Your task to perform on an android device: see creations saved in the google photos Image 0: 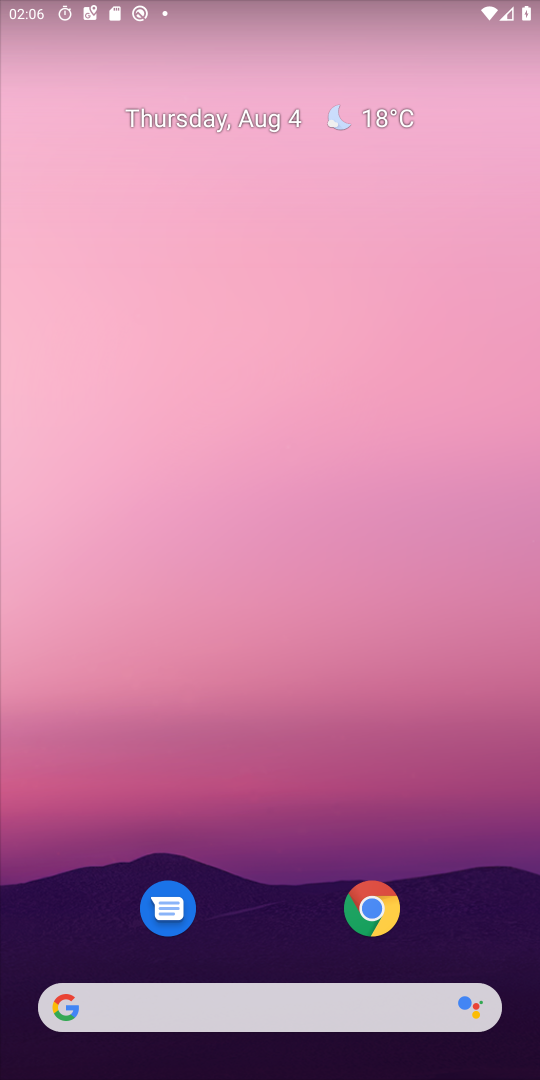
Step 0: press home button
Your task to perform on an android device: see creations saved in the google photos Image 1: 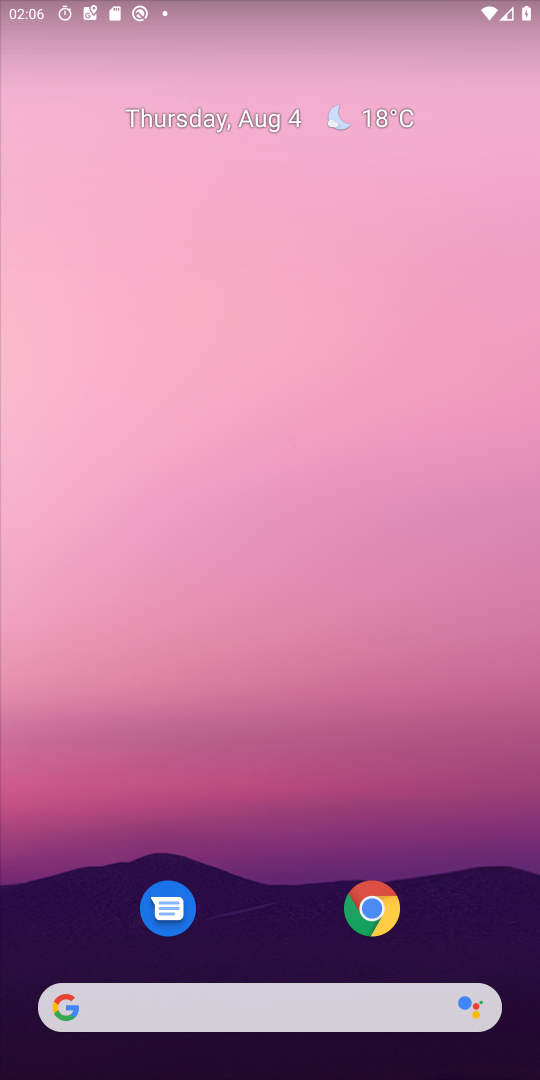
Step 1: drag from (312, 1021) to (76, 76)
Your task to perform on an android device: see creations saved in the google photos Image 2: 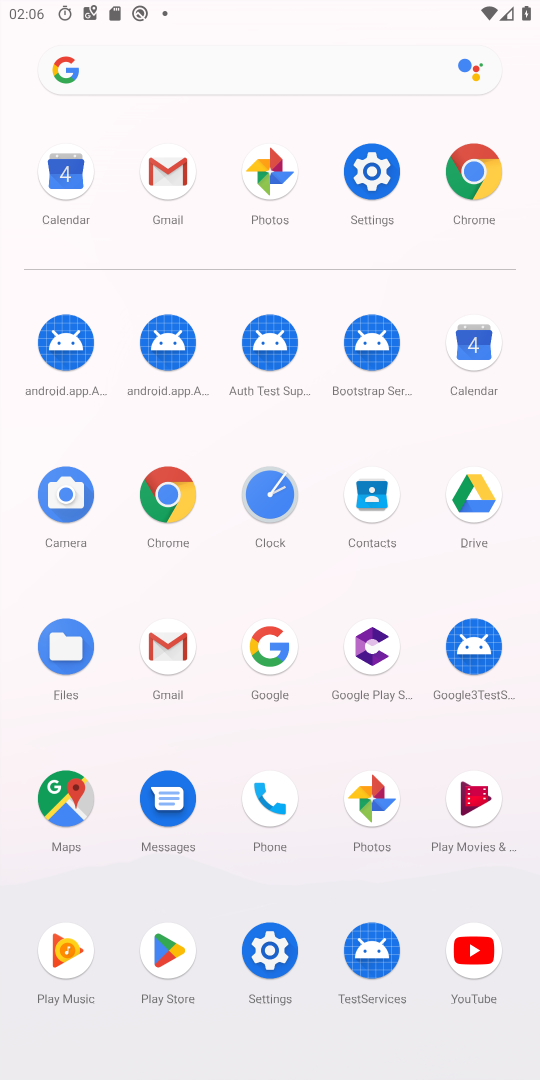
Step 2: click (368, 781)
Your task to perform on an android device: see creations saved in the google photos Image 3: 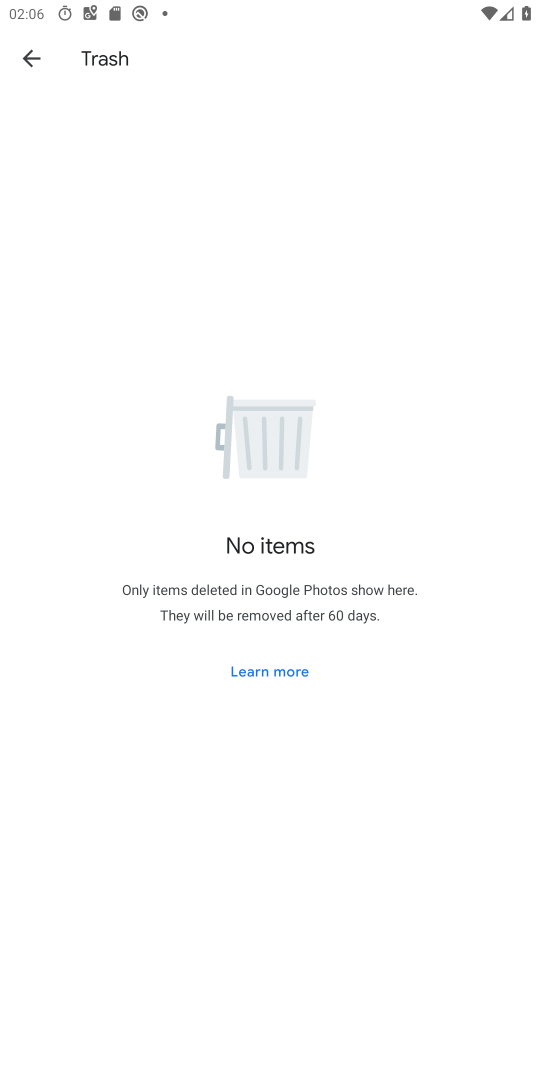
Step 3: click (54, 54)
Your task to perform on an android device: see creations saved in the google photos Image 4: 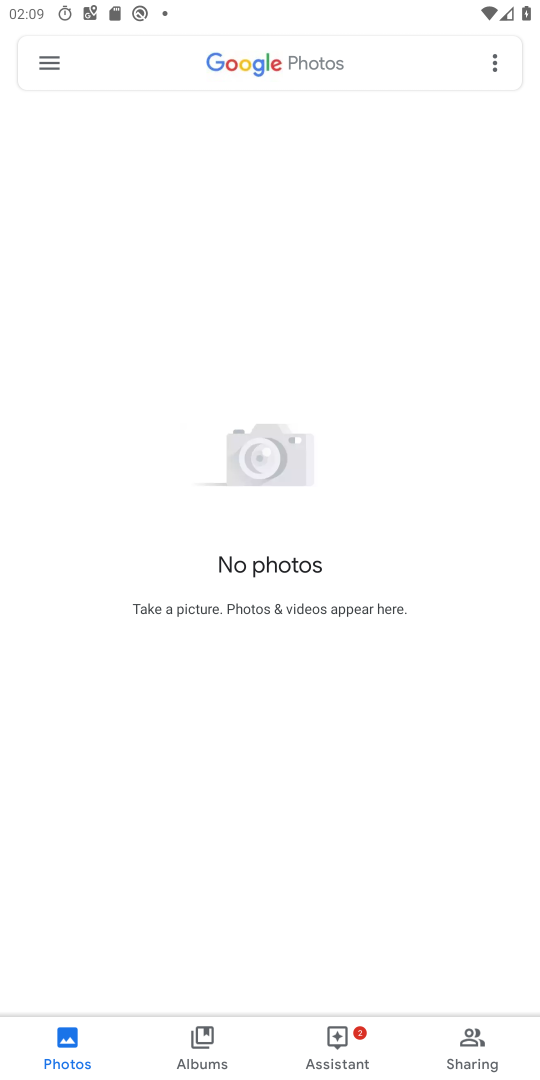
Step 4: task complete